Your task to perform on an android device: check out phone information Image 0: 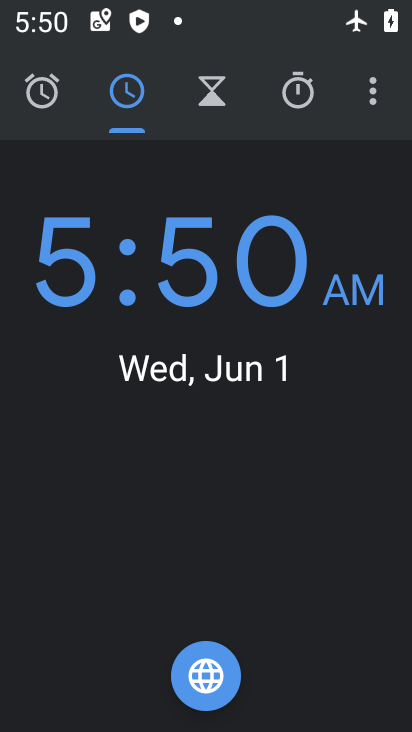
Step 0: press home button
Your task to perform on an android device: check out phone information Image 1: 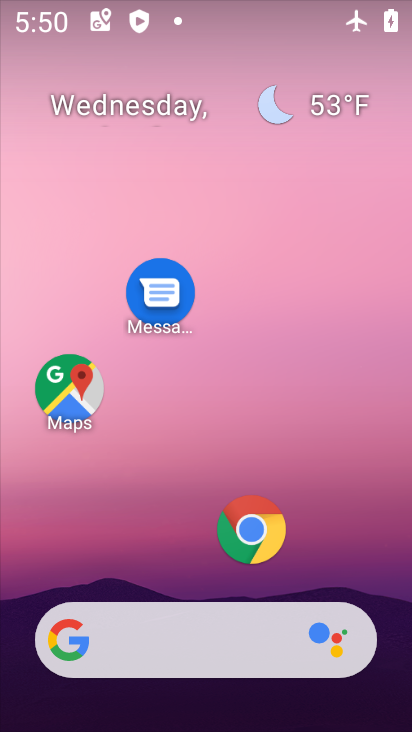
Step 1: drag from (210, 579) to (208, 116)
Your task to perform on an android device: check out phone information Image 2: 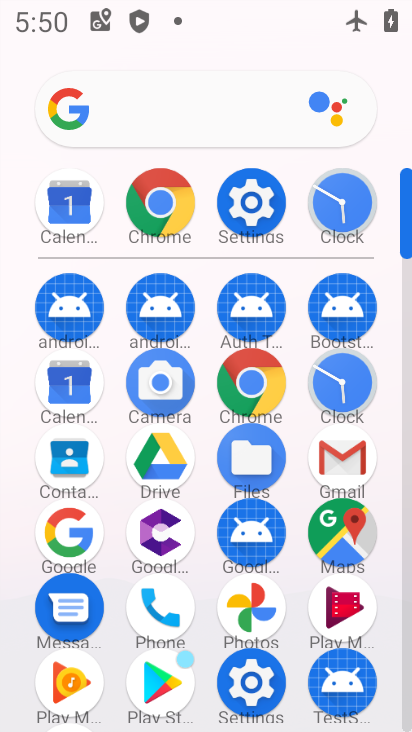
Step 2: click (247, 202)
Your task to perform on an android device: check out phone information Image 3: 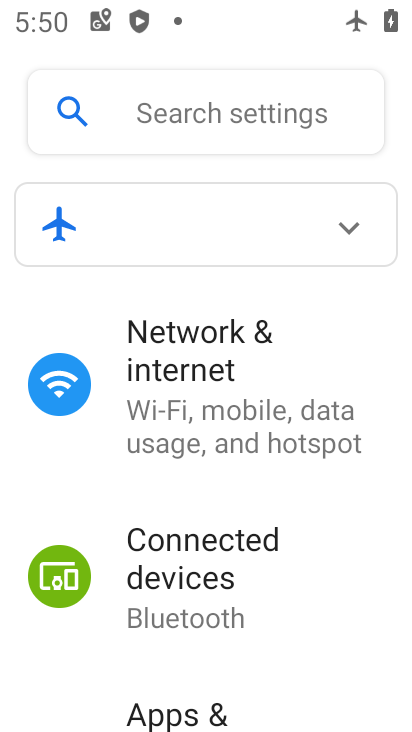
Step 3: drag from (224, 628) to (269, 311)
Your task to perform on an android device: check out phone information Image 4: 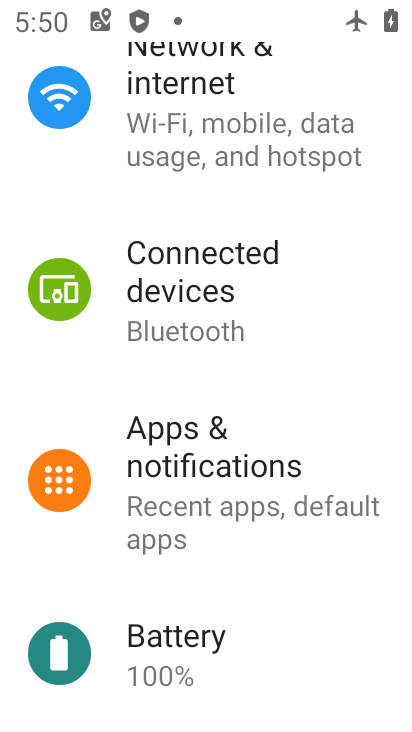
Step 4: drag from (223, 600) to (275, 254)
Your task to perform on an android device: check out phone information Image 5: 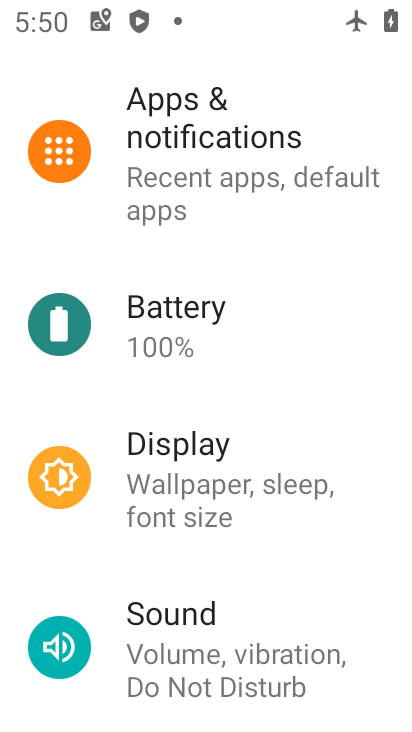
Step 5: drag from (189, 631) to (246, 193)
Your task to perform on an android device: check out phone information Image 6: 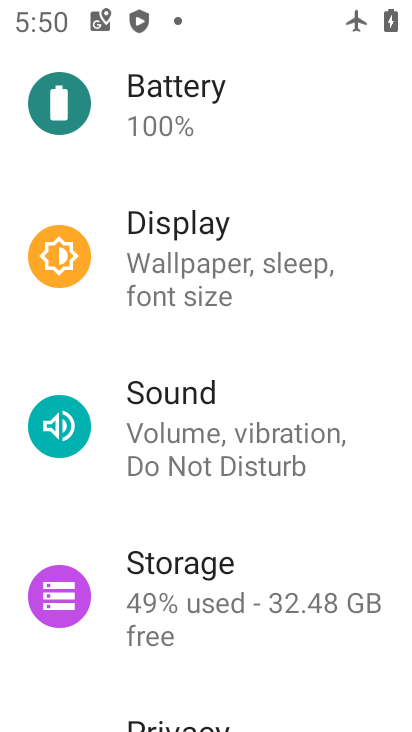
Step 6: drag from (230, 598) to (228, 206)
Your task to perform on an android device: check out phone information Image 7: 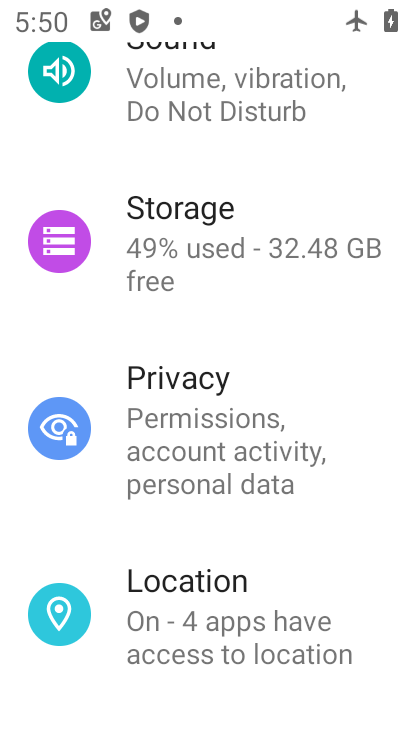
Step 7: drag from (209, 619) to (203, 286)
Your task to perform on an android device: check out phone information Image 8: 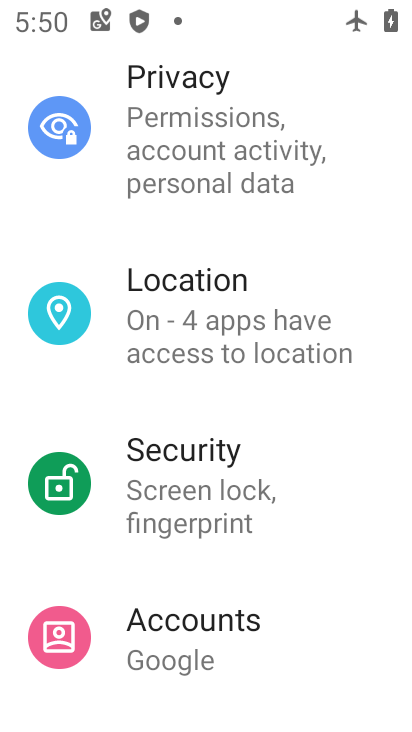
Step 8: drag from (210, 517) to (233, 274)
Your task to perform on an android device: check out phone information Image 9: 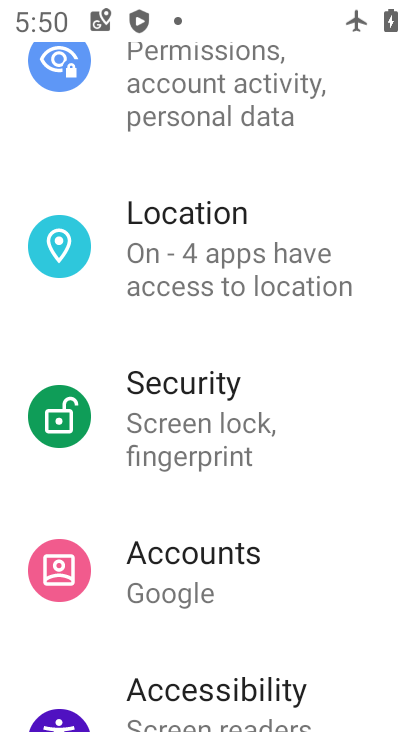
Step 9: drag from (221, 629) to (286, 274)
Your task to perform on an android device: check out phone information Image 10: 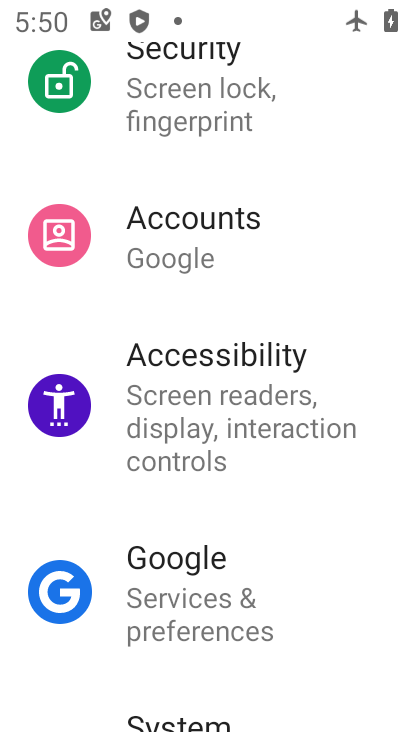
Step 10: drag from (197, 661) to (207, 248)
Your task to perform on an android device: check out phone information Image 11: 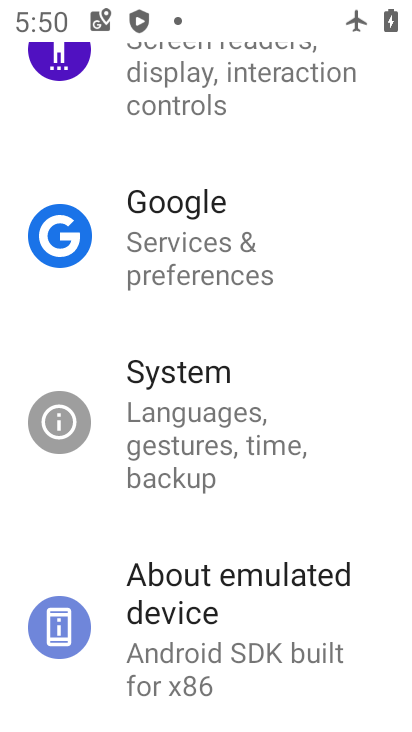
Step 11: click (198, 653)
Your task to perform on an android device: check out phone information Image 12: 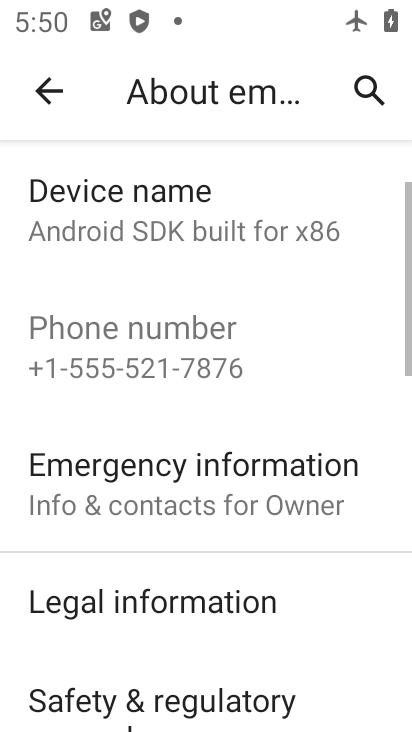
Step 12: task complete